Your task to perform on an android device: Check the weather Image 0: 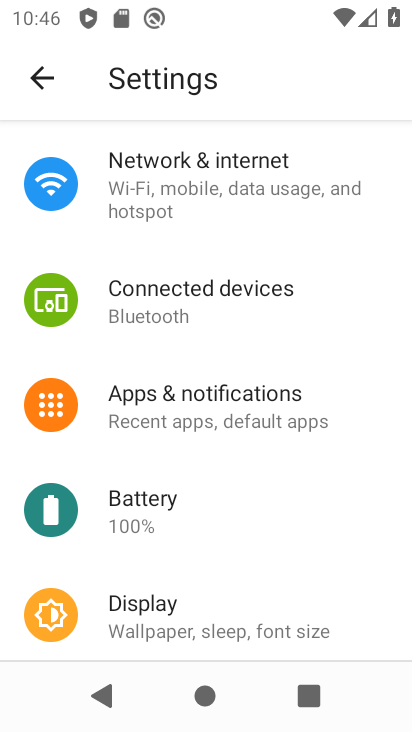
Step 0: press back button
Your task to perform on an android device: Check the weather Image 1: 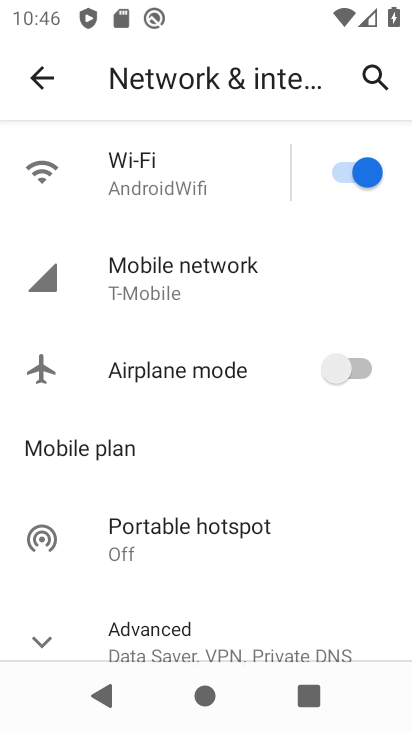
Step 1: press back button
Your task to perform on an android device: Check the weather Image 2: 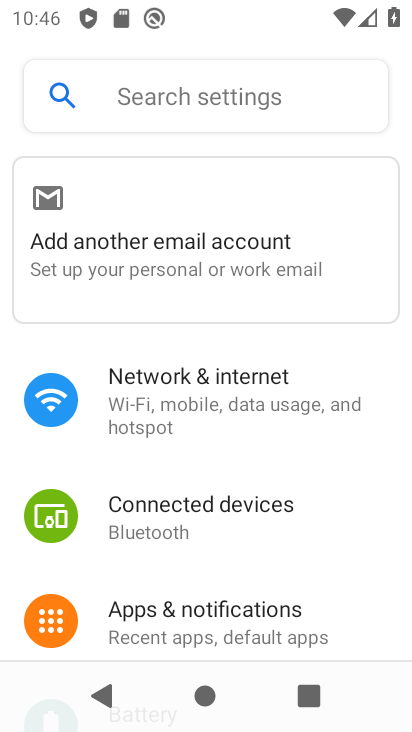
Step 2: press back button
Your task to perform on an android device: Check the weather Image 3: 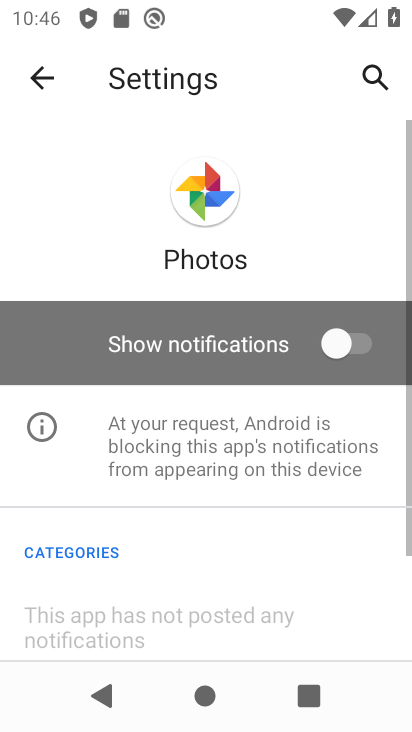
Step 3: press back button
Your task to perform on an android device: Check the weather Image 4: 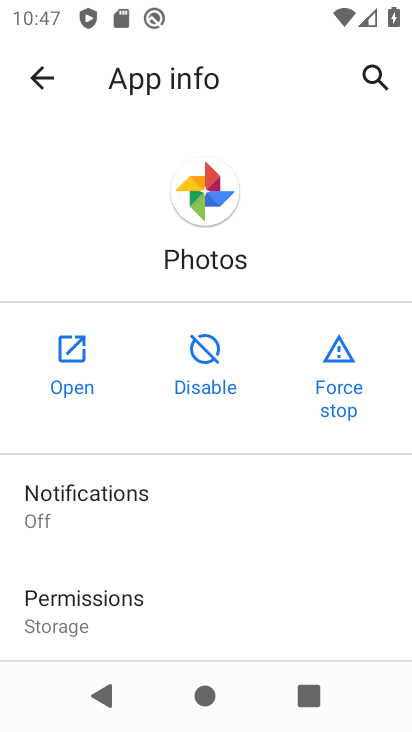
Step 4: press home button
Your task to perform on an android device: Check the weather Image 5: 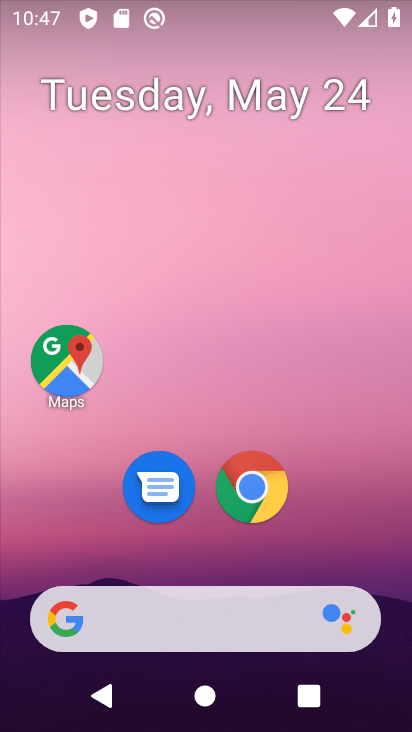
Step 5: click (229, 600)
Your task to perform on an android device: Check the weather Image 6: 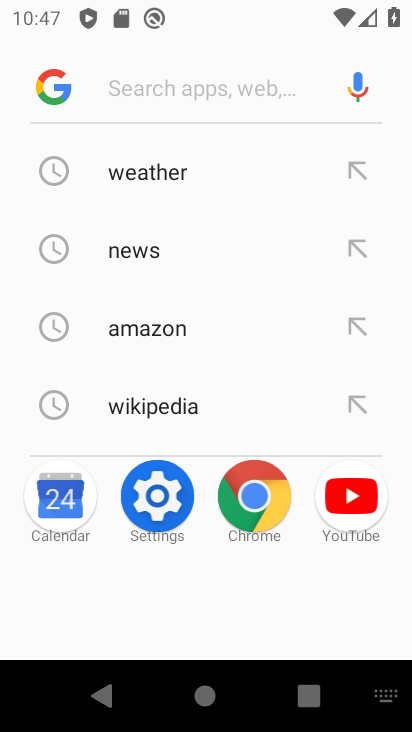
Step 6: click (181, 166)
Your task to perform on an android device: Check the weather Image 7: 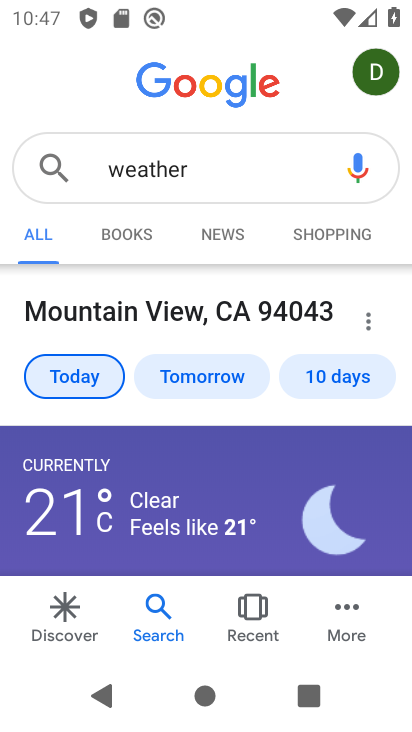
Step 7: task complete